Your task to perform on an android device: read, delete, or share a saved page in the chrome app Image 0: 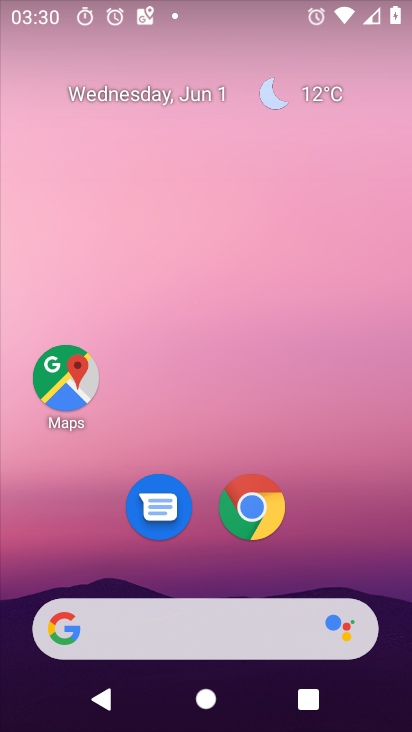
Step 0: click (254, 505)
Your task to perform on an android device: read, delete, or share a saved page in the chrome app Image 1: 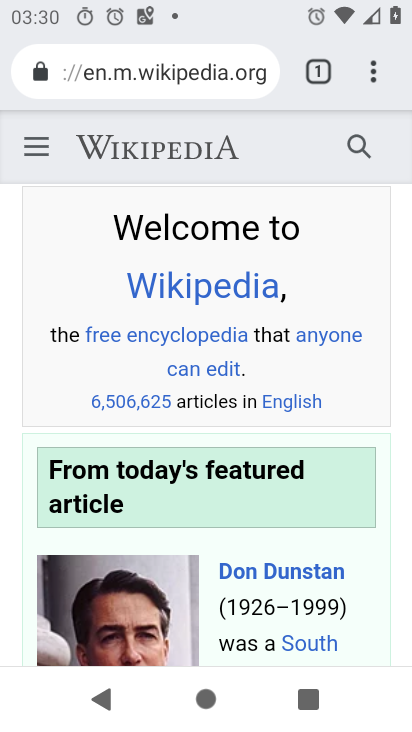
Step 1: drag from (373, 69) to (104, 469)
Your task to perform on an android device: read, delete, or share a saved page in the chrome app Image 2: 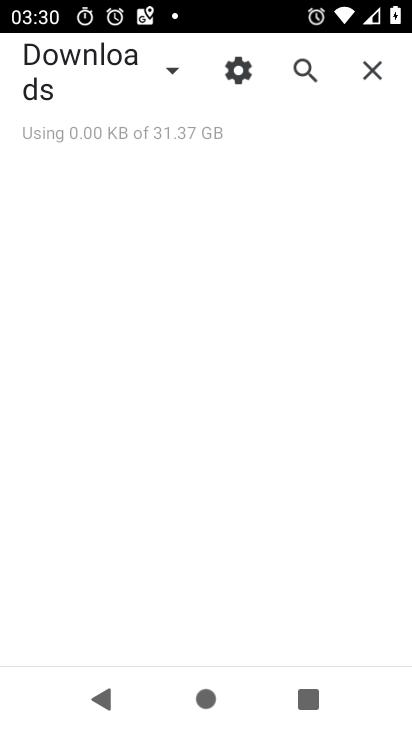
Step 2: click (175, 73)
Your task to perform on an android device: read, delete, or share a saved page in the chrome app Image 3: 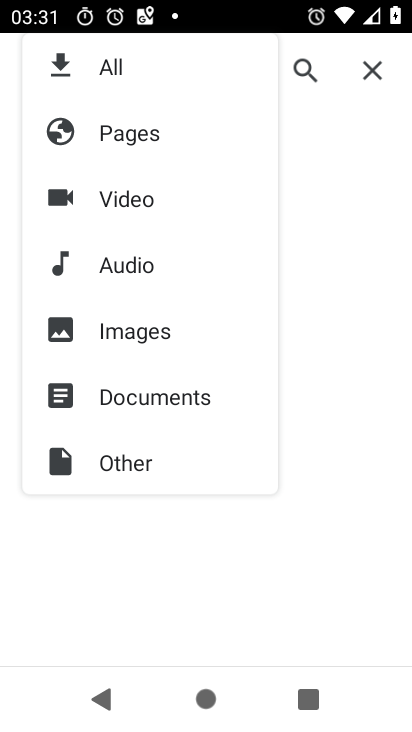
Step 3: click (122, 154)
Your task to perform on an android device: read, delete, or share a saved page in the chrome app Image 4: 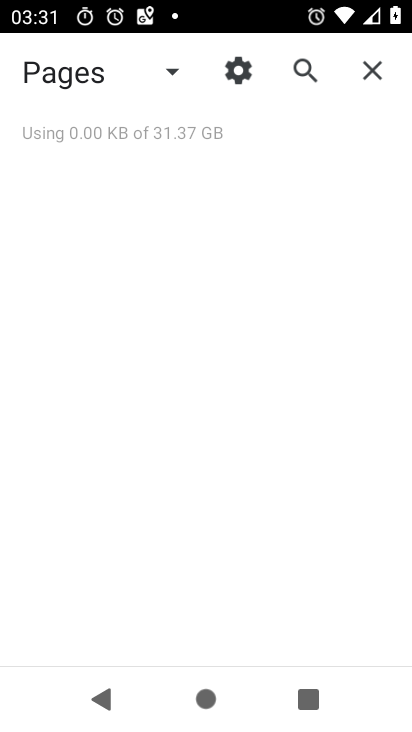
Step 4: task complete